Your task to perform on an android device: turn on showing notifications on the lock screen Image 0: 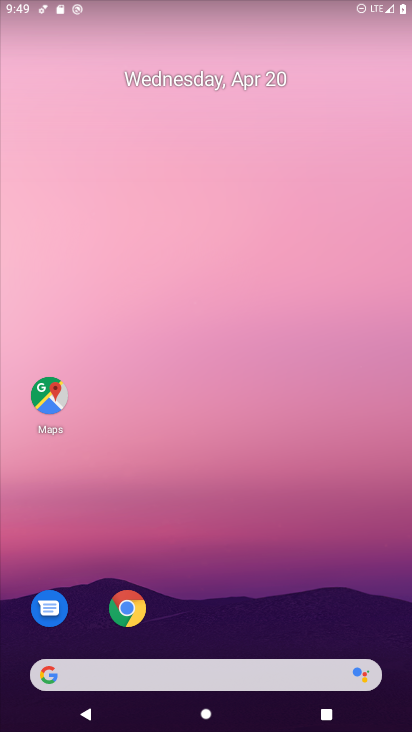
Step 0: drag from (183, 612) to (323, 11)
Your task to perform on an android device: turn on showing notifications on the lock screen Image 1: 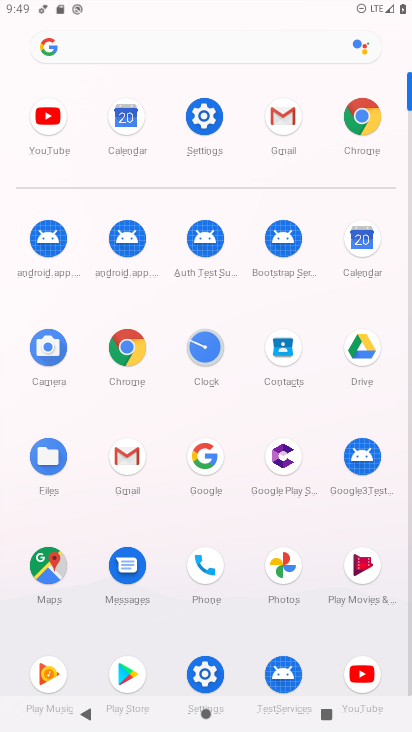
Step 1: click (200, 671)
Your task to perform on an android device: turn on showing notifications on the lock screen Image 2: 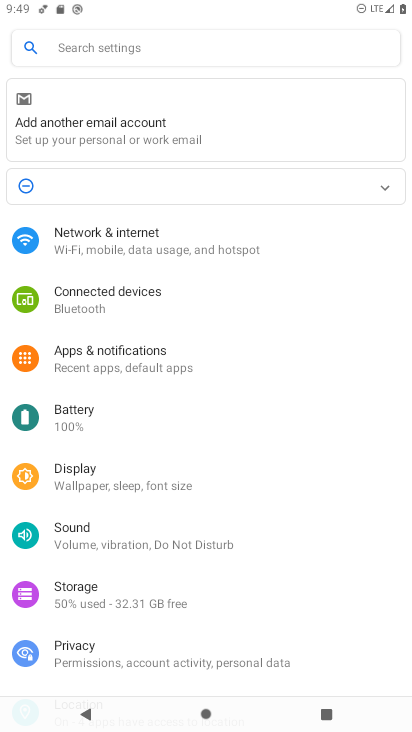
Step 2: click (151, 358)
Your task to perform on an android device: turn on showing notifications on the lock screen Image 3: 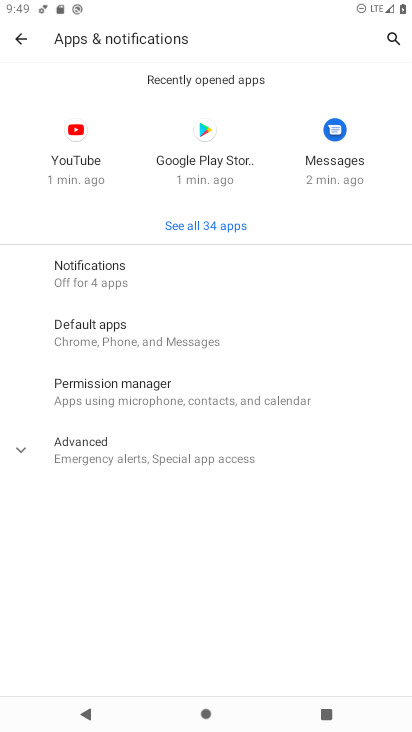
Step 3: click (89, 272)
Your task to perform on an android device: turn on showing notifications on the lock screen Image 4: 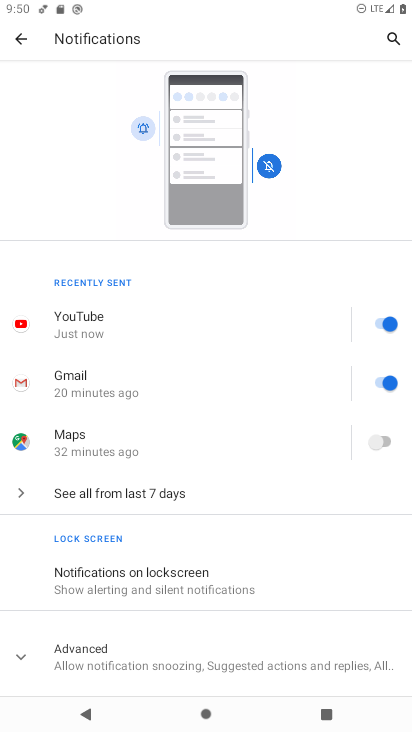
Step 4: click (121, 571)
Your task to perform on an android device: turn on showing notifications on the lock screen Image 5: 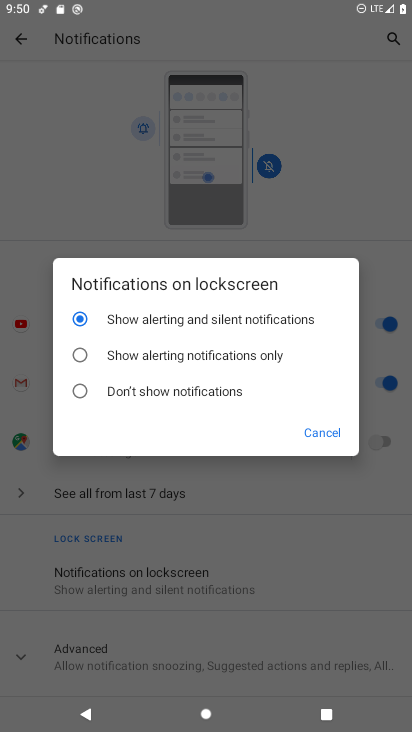
Step 5: task complete